Your task to perform on an android device: Turn on the flashlight Image 0: 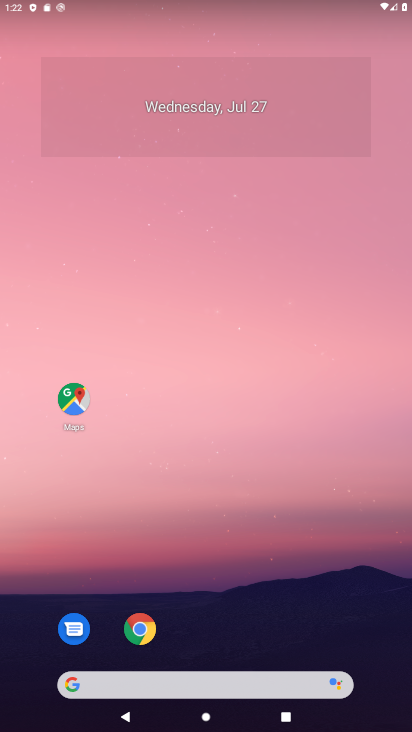
Step 0: press home button
Your task to perform on an android device: Turn on the flashlight Image 1: 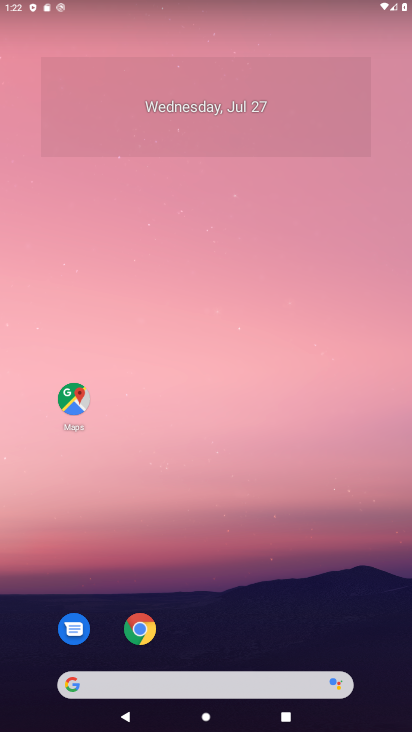
Step 1: task complete